Your task to perform on an android device: Turn on the flashlight Image 0: 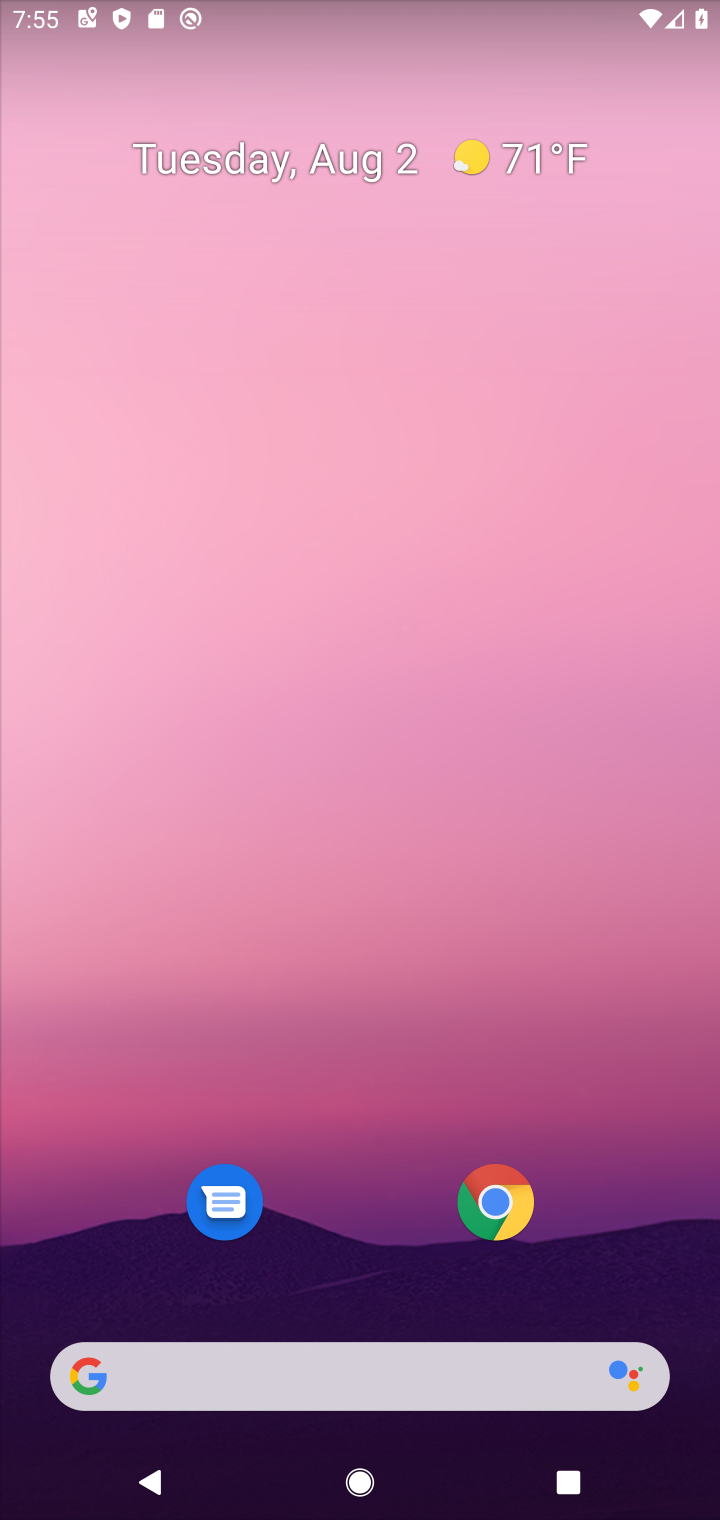
Step 0: drag from (422, 287) to (464, 1163)
Your task to perform on an android device: Turn on the flashlight Image 1: 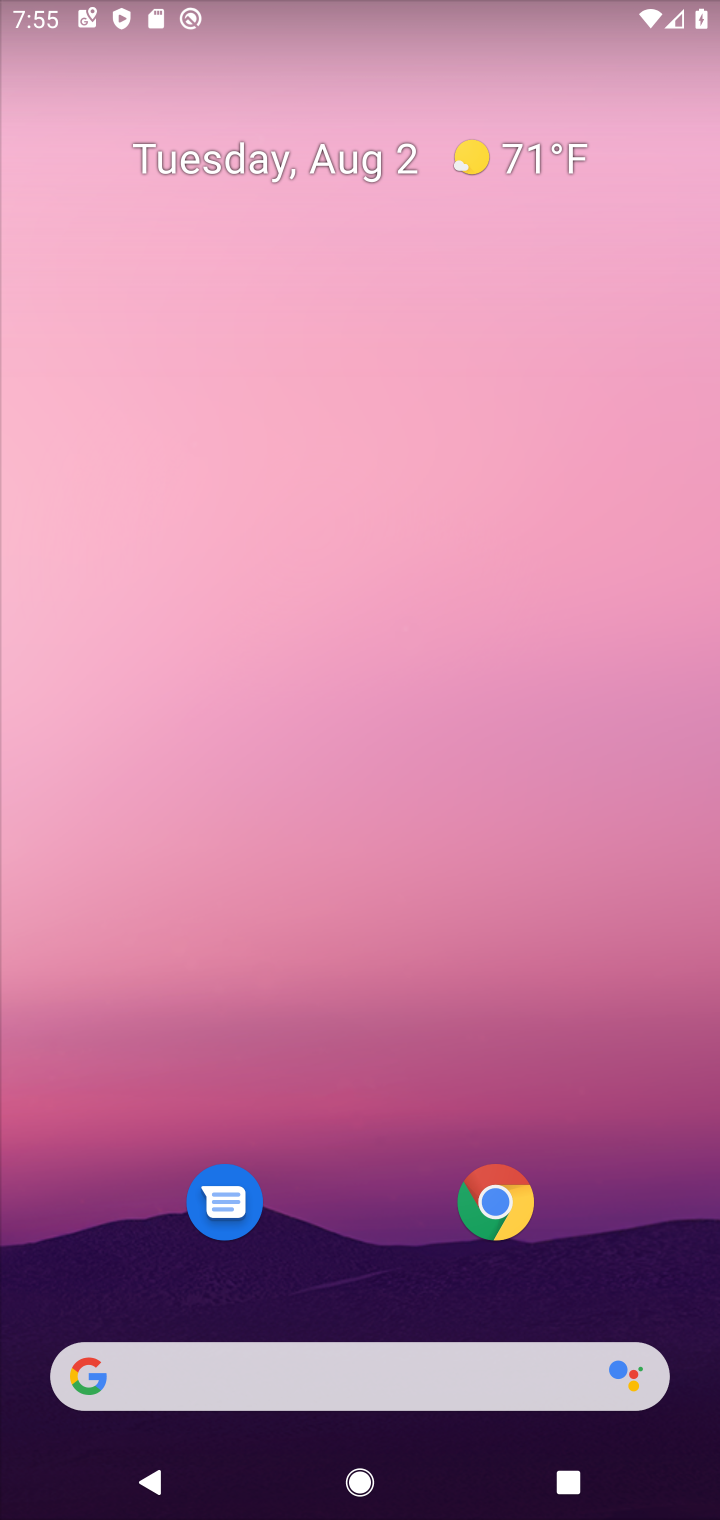
Step 1: task complete